Your task to perform on an android device: Open Google Maps and go to "Timeline" Image 0: 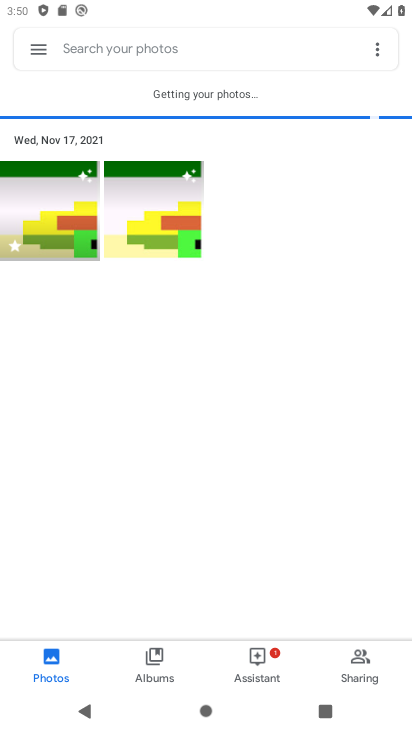
Step 0: press home button
Your task to perform on an android device: Open Google Maps and go to "Timeline" Image 1: 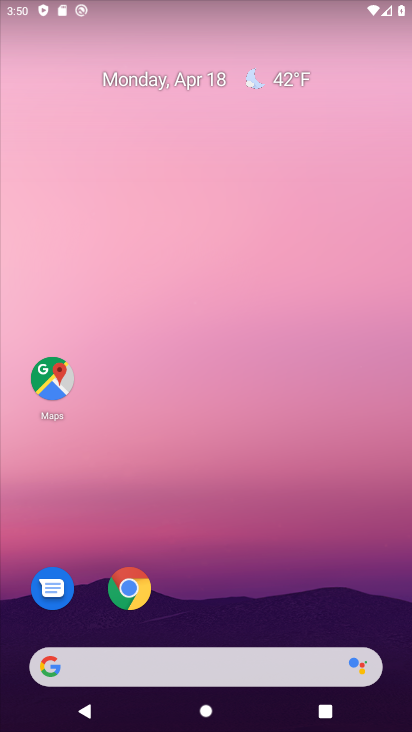
Step 1: click (57, 376)
Your task to perform on an android device: Open Google Maps and go to "Timeline" Image 2: 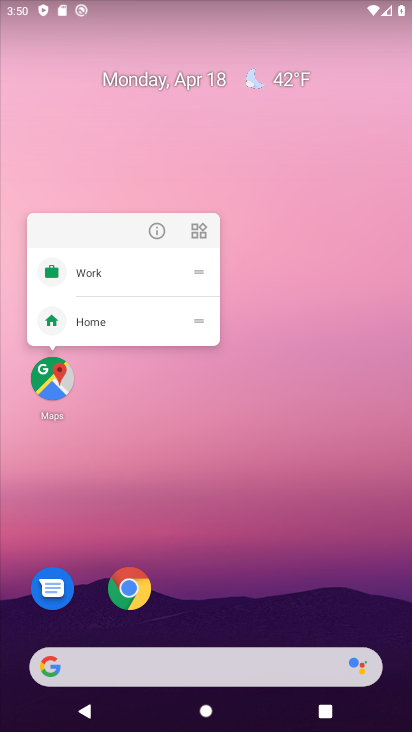
Step 2: click (52, 386)
Your task to perform on an android device: Open Google Maps and go to "Timeline" Image 3: 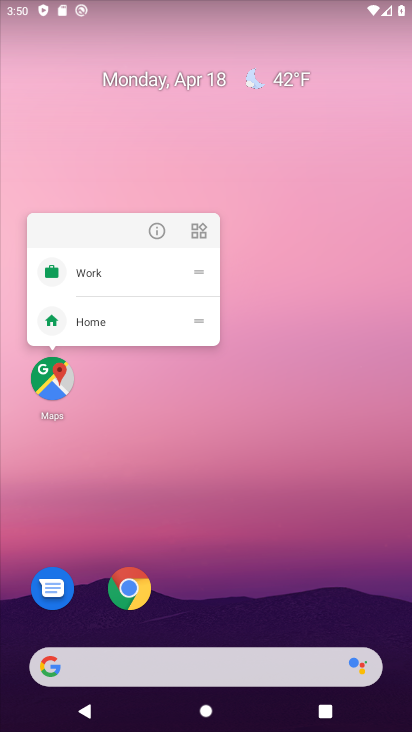
Step 3: click (47, 371)
Your task to perform on an android device: Open Google Maps and go to "Timeline" Image 4: 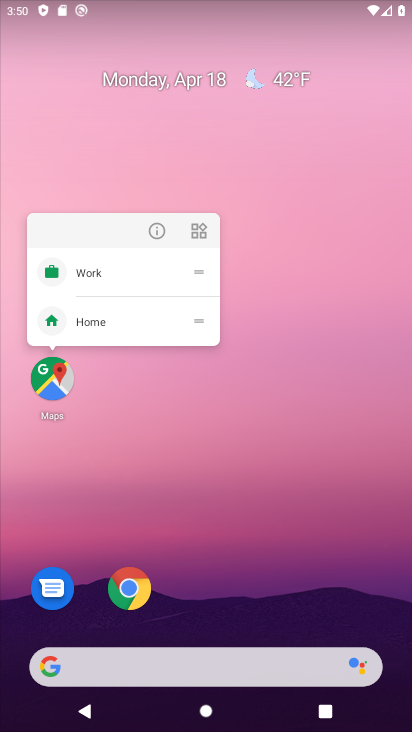
Step 4: click (53, 388)
Your task to perform on an android device: Open Google Maps and go to "Timeline" Image 5: 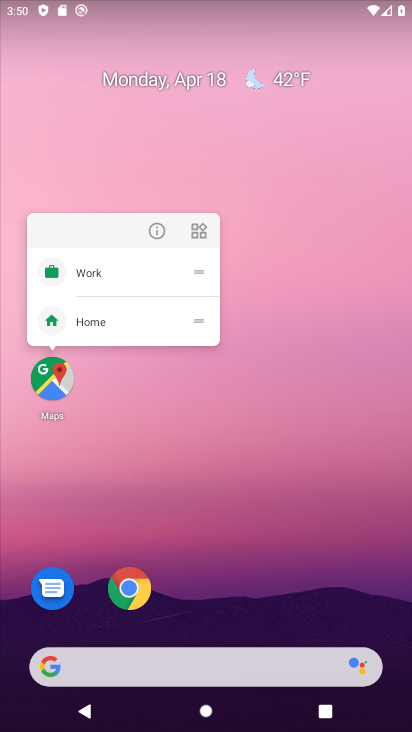
Step 5: click (54, 394)
Your task to perform on an android device: Open Google Maps and go to "Timeline" Image 6: 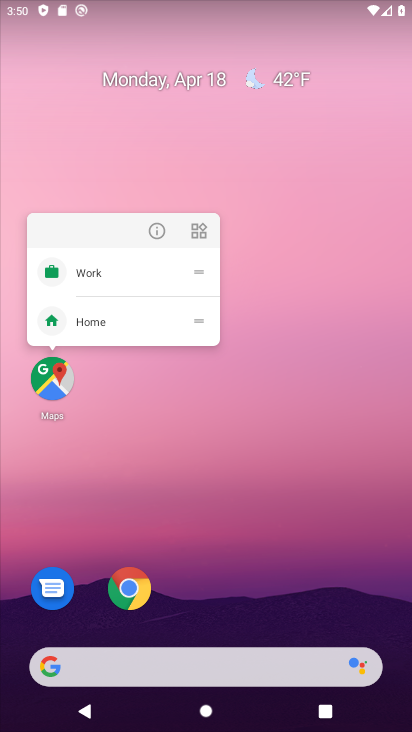
Step 6: click (91, 457)
Your task to perform on an android device: Open Google Maps and go to "Timeline" Image 7: 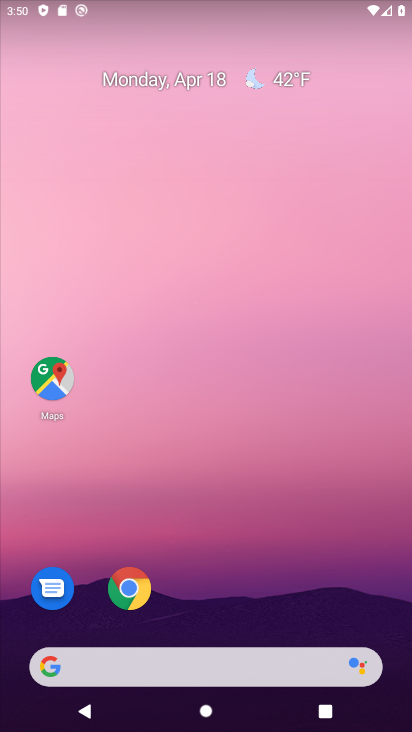
Step 7: click (55, 388)
Your task to perform on an android device: Open Google Maps and go to "Timeline" Image 8: 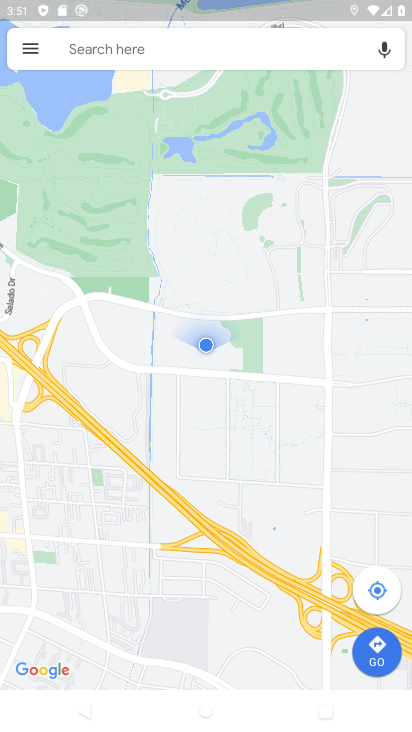
Step 8: click (31, 50)
Your task to perform on an android device: Open Google Maps and go to "Timeline" Image 9: 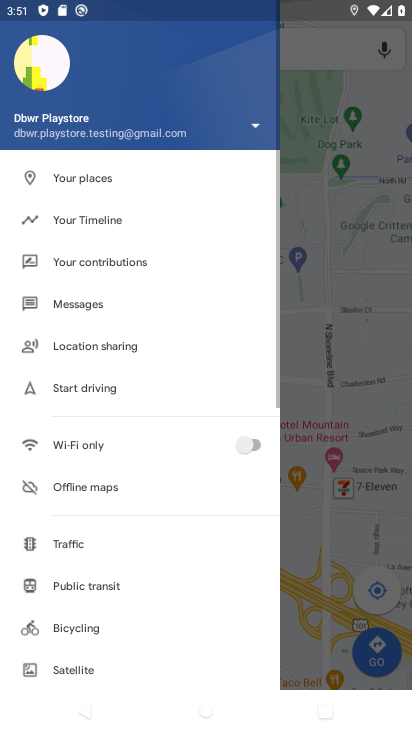
Step 9: click (91, 215)
Your task to perform on an android device: Open Google Maps and go to "Timeline" Image 10: 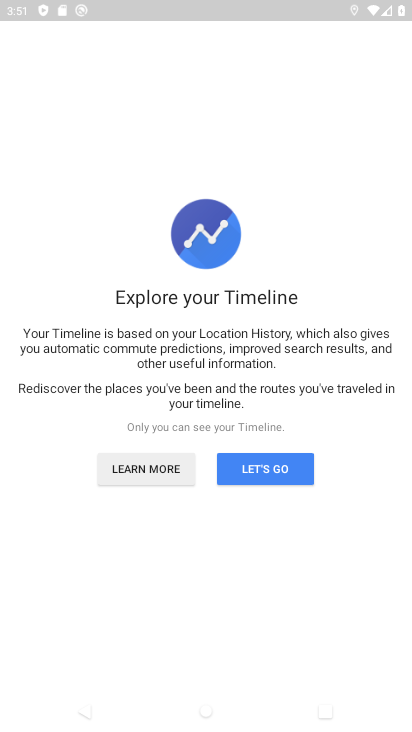
Step 10: click (273, 482)
Your task to perform on an android device: Open Google Maps and go to "Timeline" Image 11: 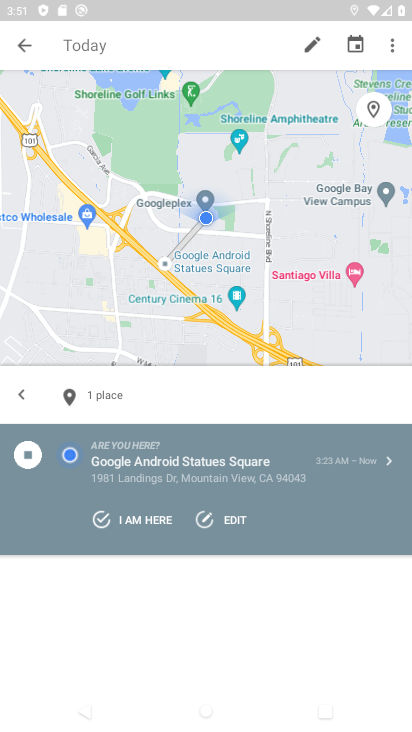
Step 11: task complete